Your task to perform on an android device: Open Google Maps and go to "Timeline" Image 0: 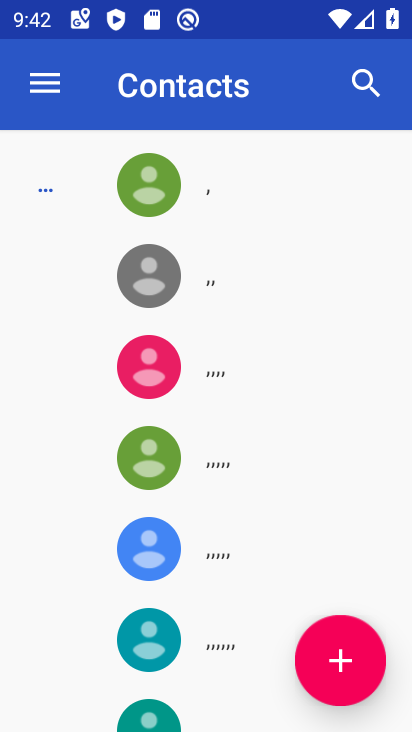
Step 0: press home button
Your task to perform on an android device: Open Google Maps and go to "Timeline" Image 1: 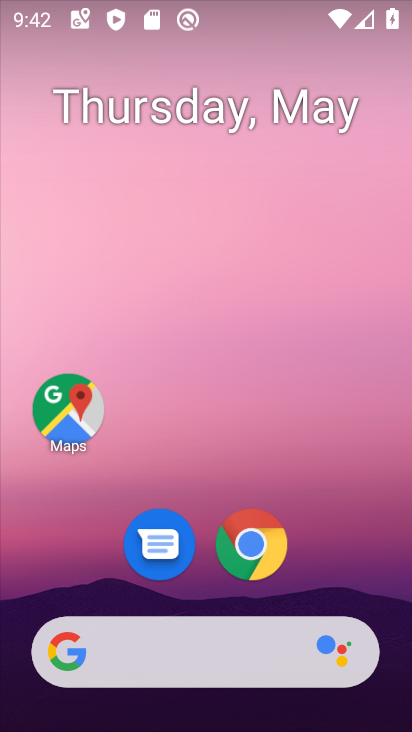
Step 1: click (66, 415)
Your task to perform on an android device: Open Google Maps and go to "Timeline" Image 2: 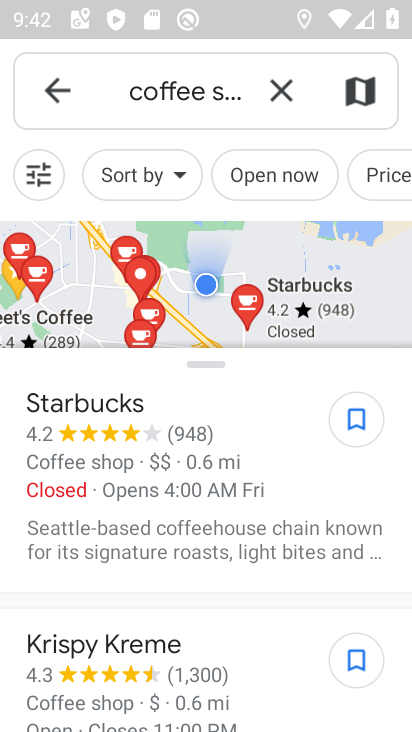
Step 2: click (65, 86)
Your task to perform on an android device: Open Google Maps and go to "Timeline" Image 3: 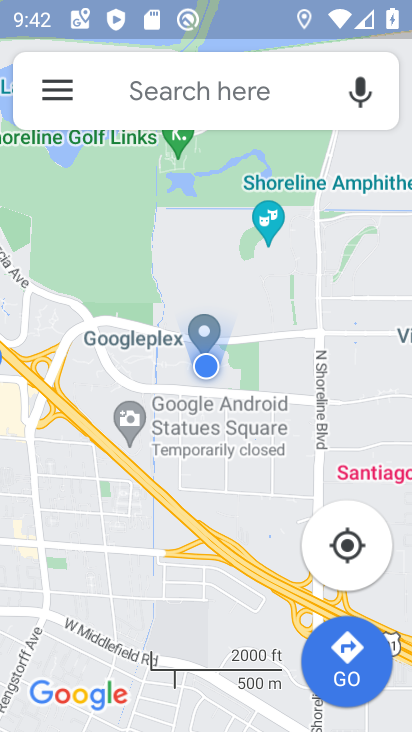
Step 3: click (60, 93)
Your task to perform on an android device: Open Google Maps and go to "Timeline" Image 4: 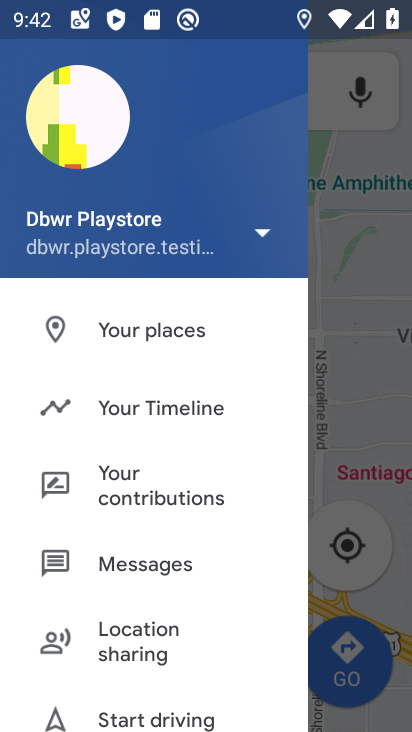
Step 4: click (141, 401)
Your task to perform on an android device: Open Google Maps and go to "Timeline" Image 5: 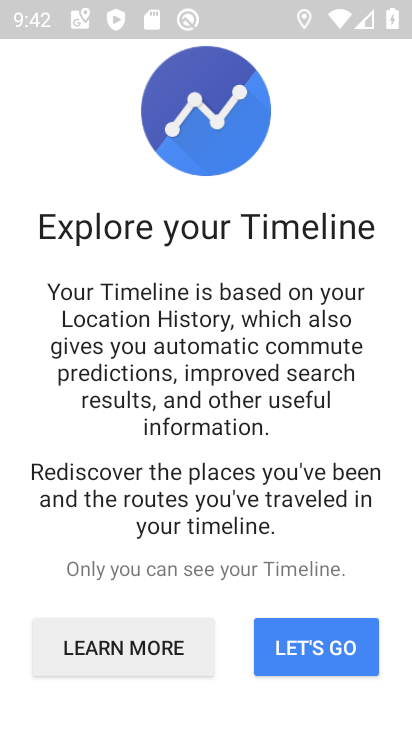
Step 5: click (320, 662)
Your task to perform on an android device: Open Google Maps and go to "Timeline" Image 6: 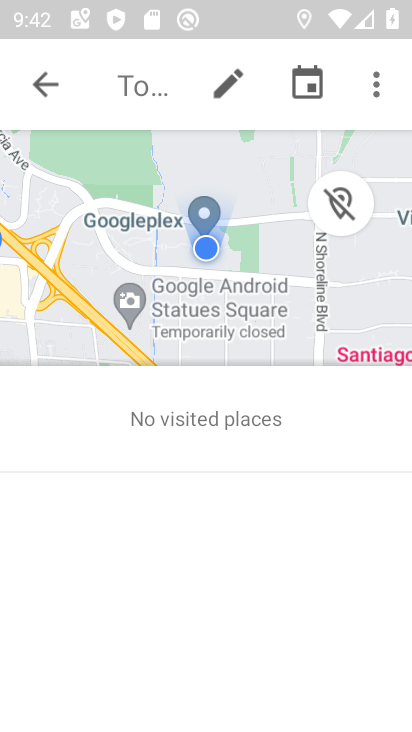
Step 6: task complete